Your task to perform on an android device: see creations saved in the google photos Image 0: 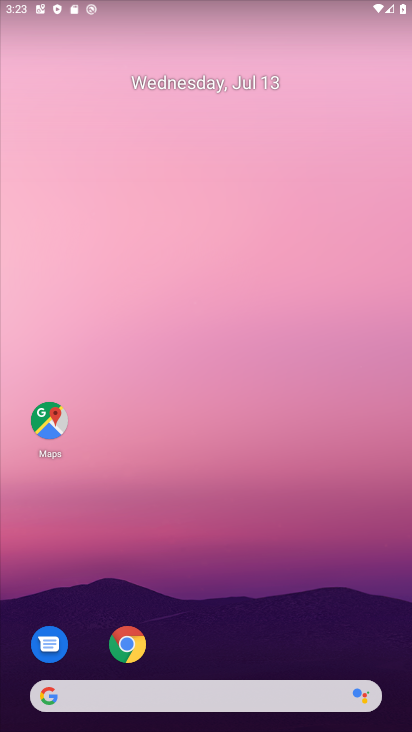
Step 0: drag from (185, 668) to (247, 106)
Your task to perform on an android device: see creations saved in the google photos Image 1: 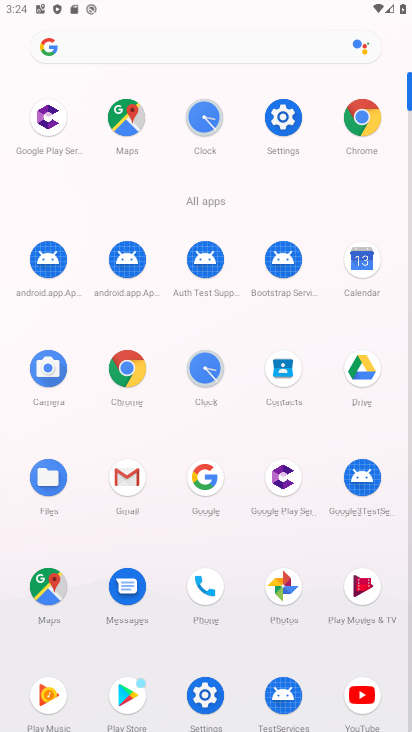
Step 1: click (291, 590)
Your task to perform on an android device: see creations saved in the google photos Image 2: 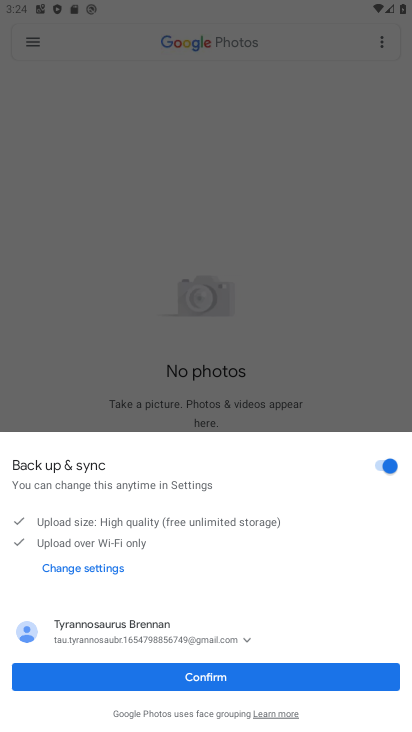
Step 2: click (204, 693)
Your task to perform on an android device: see creations saved in the google photos Image 3: 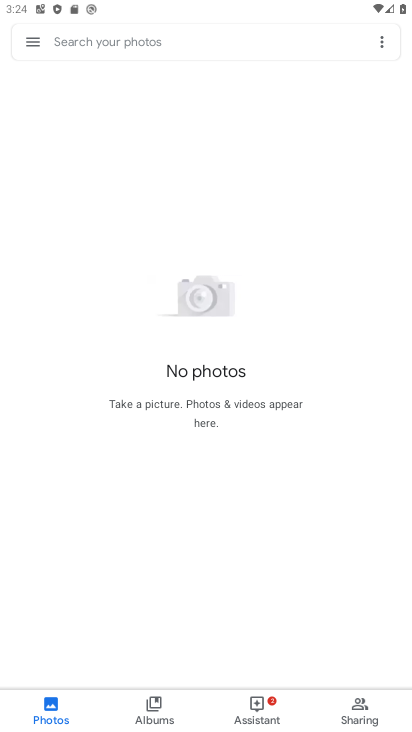
Step 3: click (168, 52)
Your task to perform on an android device: see creations saved in the google photos Image 4: 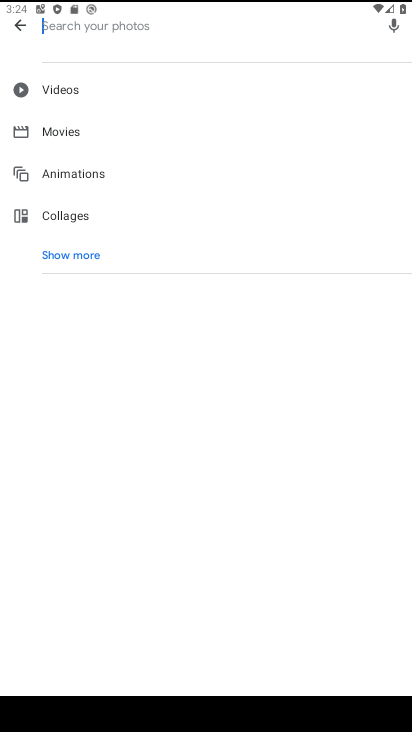
Step 4: click (96, 255)
Your task to perform on an android device: see creations saved in the google photos Image 5: 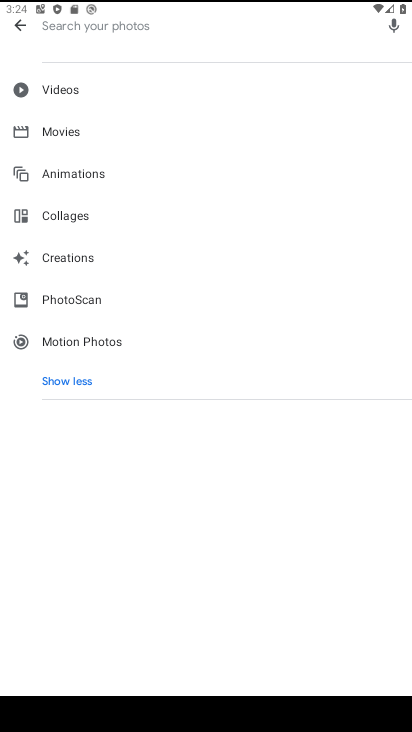
Step 5: click (72, 261)
Your task to perform on an android device: see creations saved in the google photos Image 6: 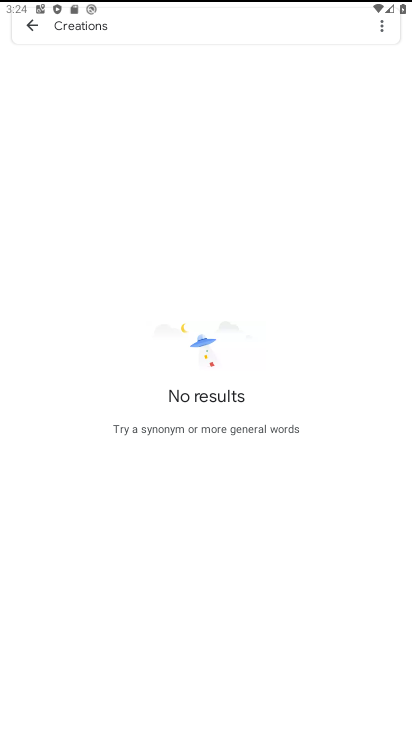
Step 6: task complete